Your task to perform on an android device: Go to calendar. Show me events next week Image 0: 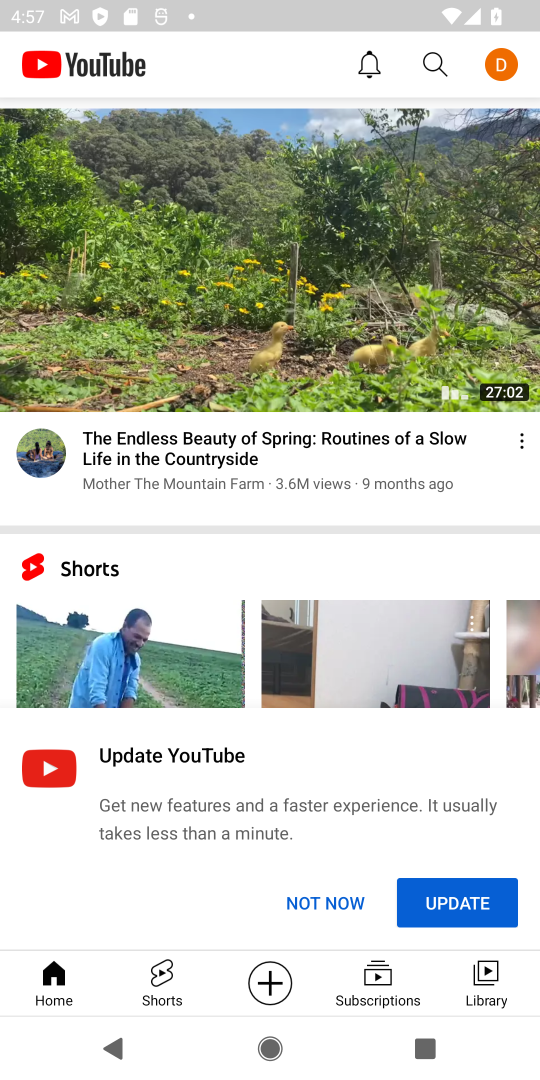
Step 0: press back button
Your task to perform on an android device: Go to calendar. Show me events next week Image 1: 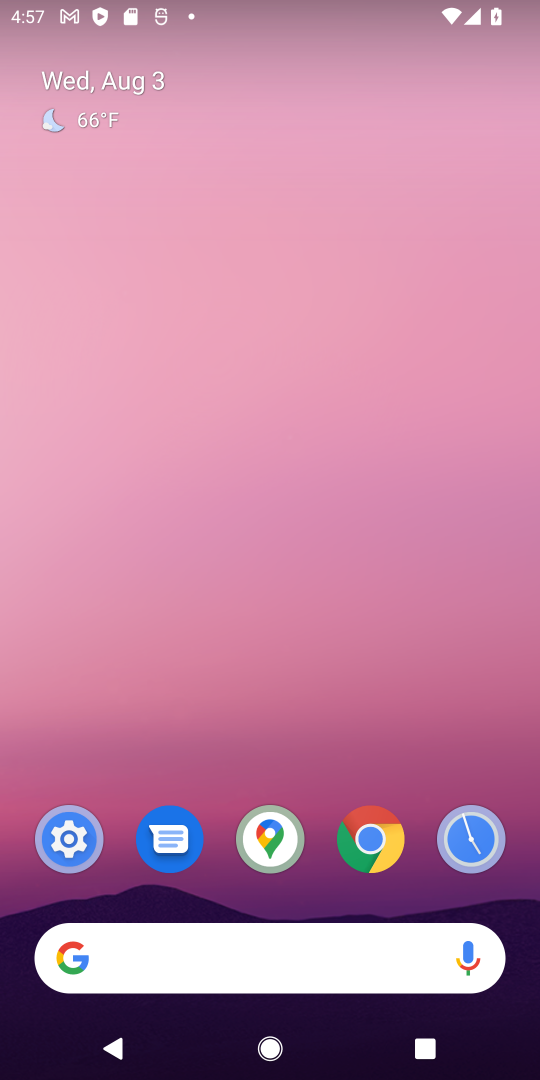
Step 1: drag from (240, 562) to (338, 17)
Your task to perform on an android device: Go to calendar. Show me events next week Image 2: 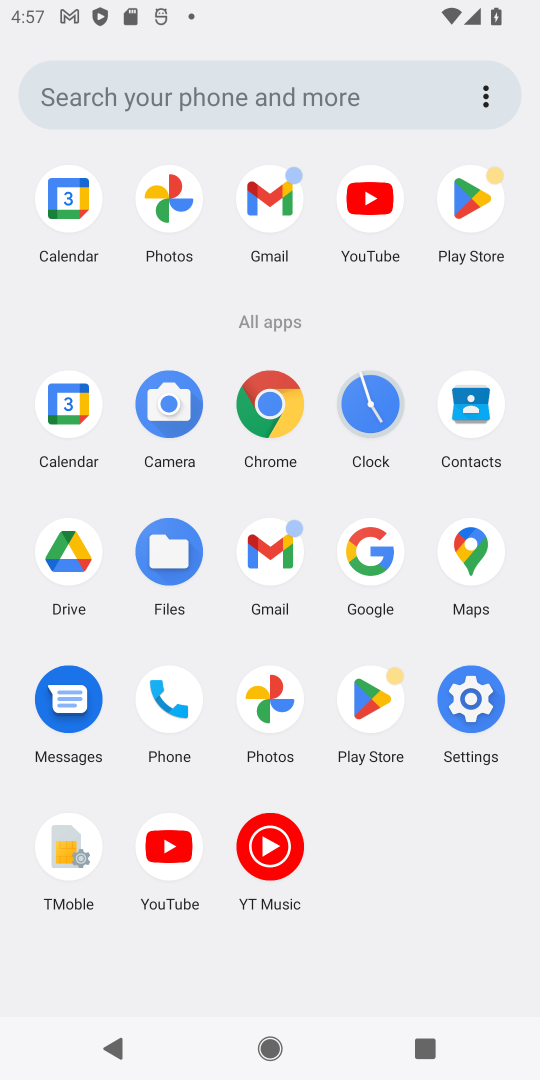
Step 2: click (60, 416)
Your task to perform on an android device: Go to calendar. Show me events next week Image 3: 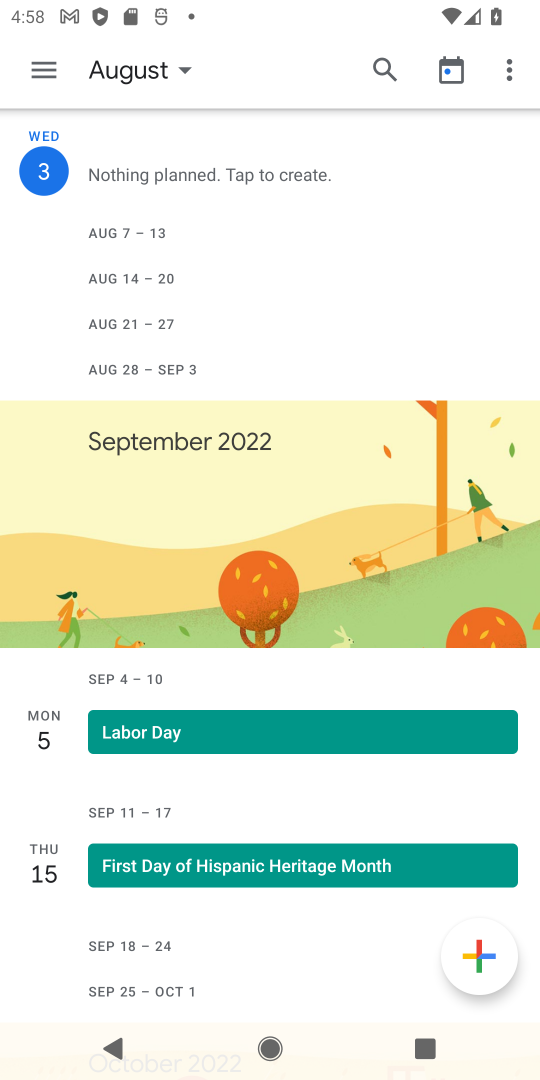
Step 3: click (184, 72)
Your task to perform on an android device: Go to calendar. Show me events next week Image 4: 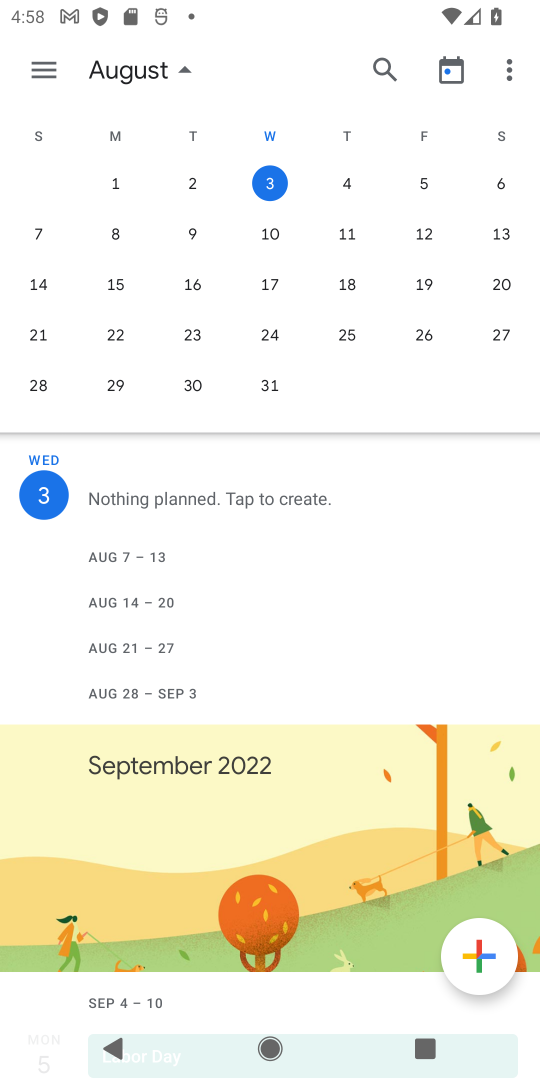
Step 4: click (113, 228)
Your task to perform on an android device: Go to calendar. Show me events next week Image 5: 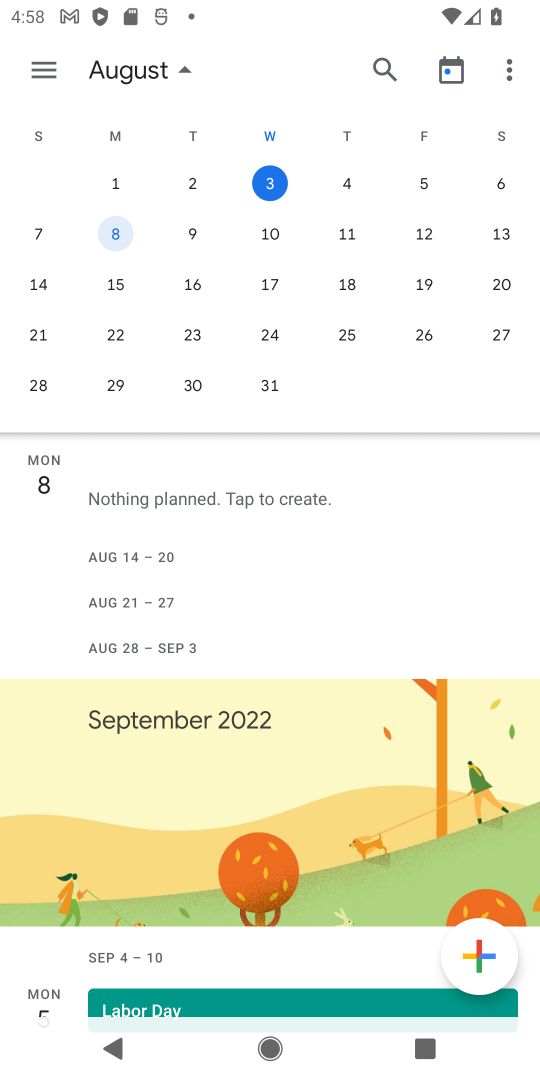
Step 5: task complete